Your task to perform on an android device: Open eBay Image 0: 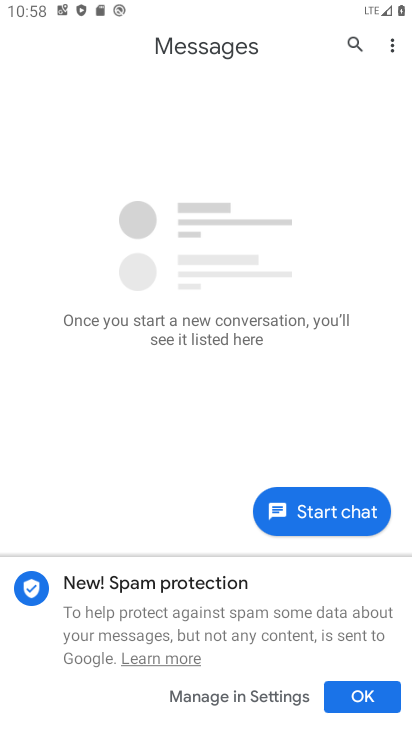
Step 0: press home button
Your task to perform on an android device: Open eBay Image 1: 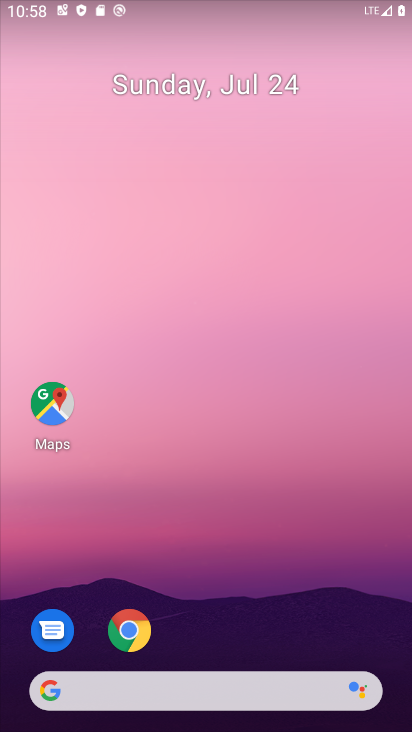
Step 1: click (142, 644)
Your task to perform on an android device: Open eBay Image 2: 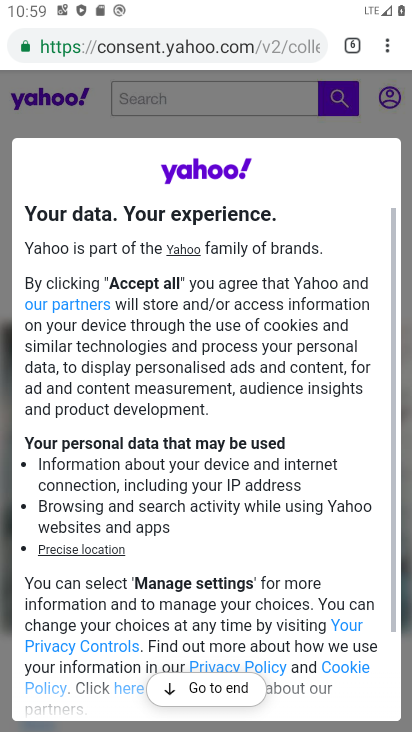
Step 2: click (350, 41)
Your task to perform on an android device: Open eBay Image 3: 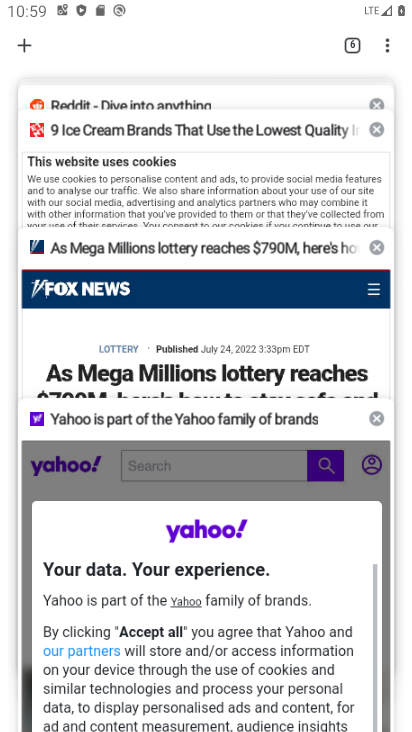
Step 3: click (29, 46)
Your task to perform on an android device: Open eBay Image 4: 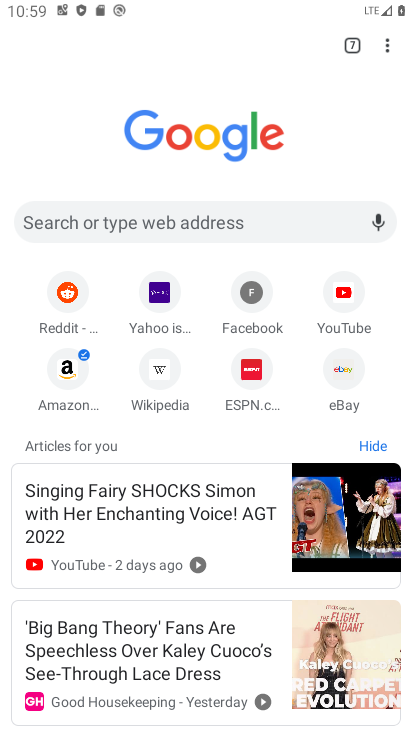
Step 4: click (335, 373)
Your task to perform on an android device: Open eBay Image 5: 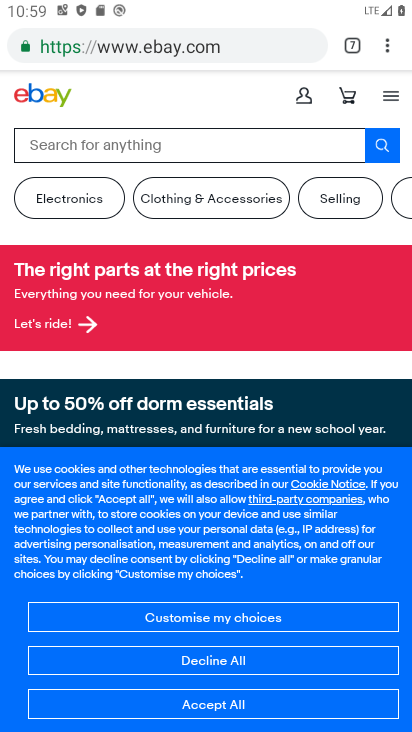
Step 5: task complete